Your task to perform on an android device: Go to Maps Image 0: 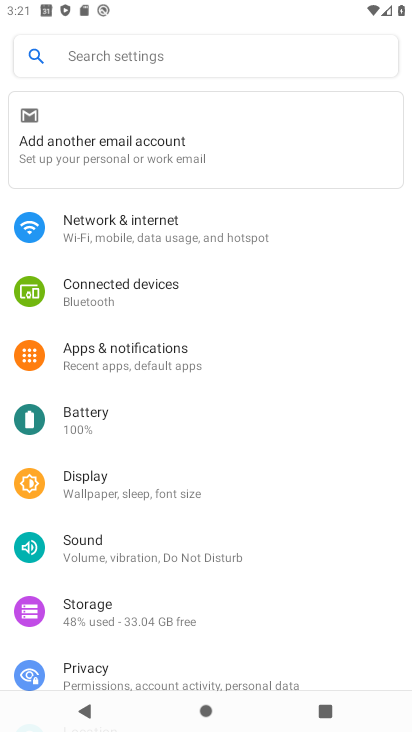
Step 0: press home button
Your task to perform on an android device: Go to Maps Image 1: 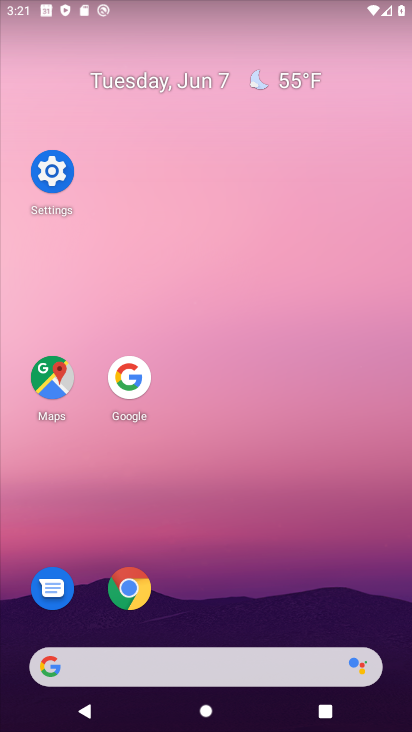
Step 1: click (57, 387)
Your task to perform on an android device: Go to Maps Image 2: 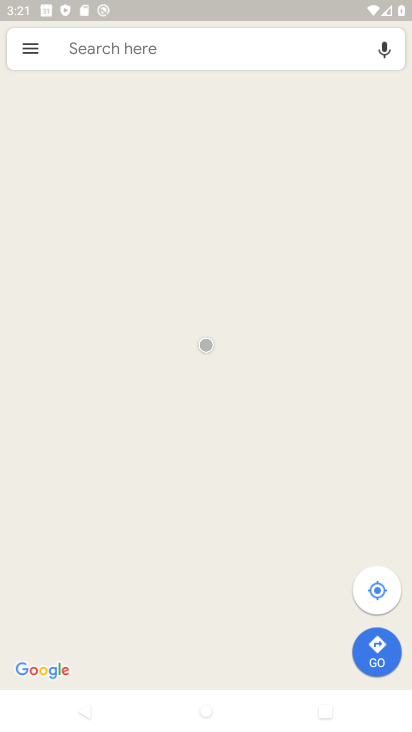
Step 2: task complete